Your task to perform on an android device: Go to display settings Image 0: 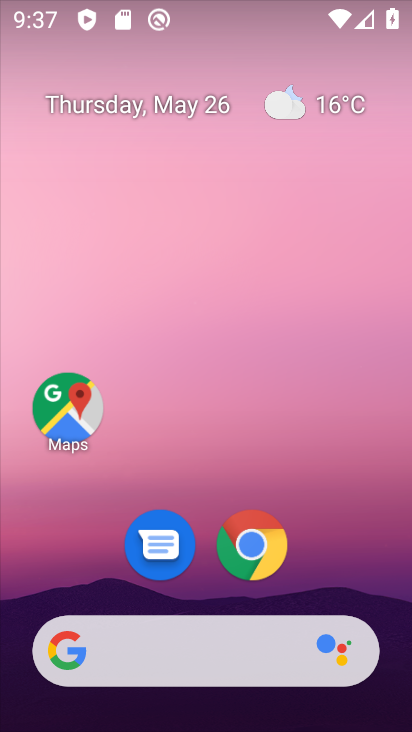
Step 0: drag from (319, 557) to (311, 29)
Your task to perform on an android device: Go to display settings Image 1: 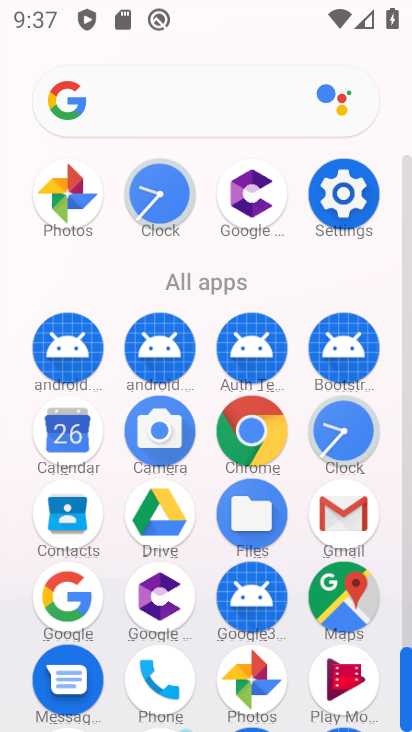
Step 1: click (343, 190)
Your task to perform on an android device: Go to display settings Image 2: 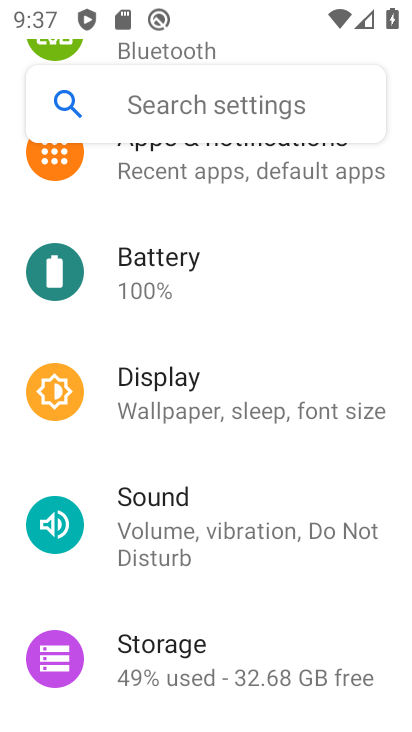
Step 2: click (171, 387)
Your task to perform on an android device: Go to display settings Image 3: 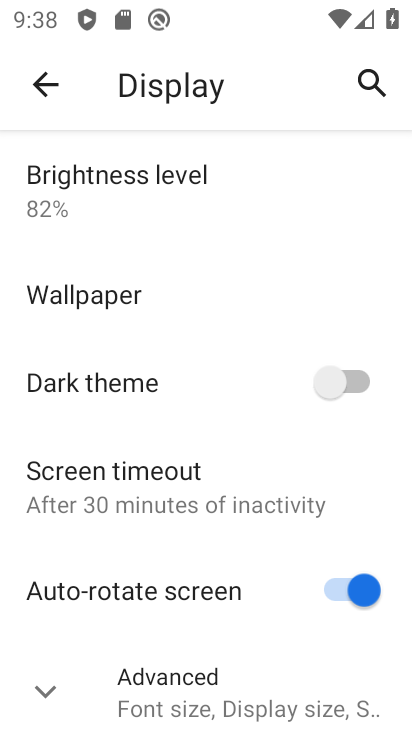
Step 3: task complete